Your task to perform on an android device: Open my contact list Image 0: 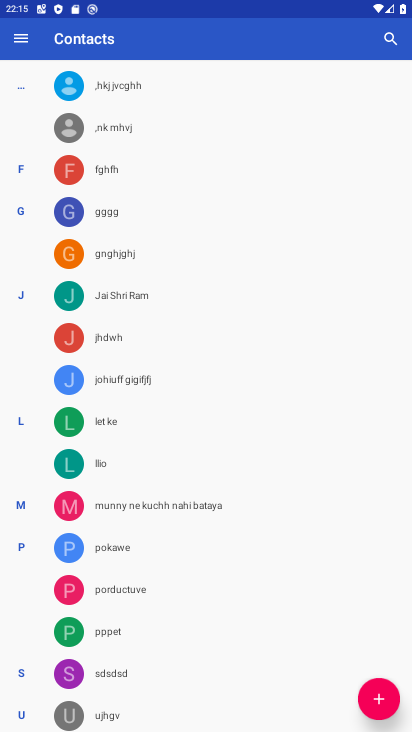
Step 0: task complete